Your task to perform on an android device: Go to Maps Image 0: 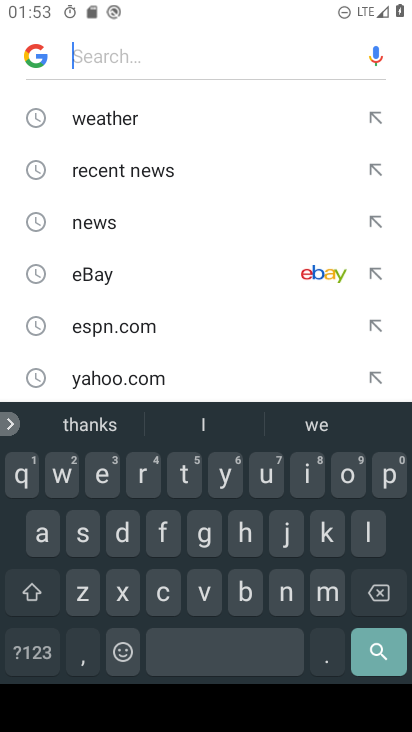
Step 0: press home button
Your task to perform on an android device: Go to Maps Image 1: 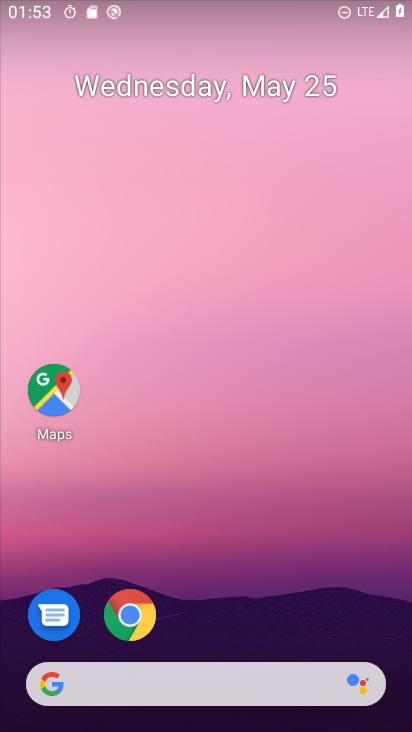
Step 1: drag from (202, 706) to (366, 0)
Your task to perform on an android device: Go to Maps Image 2: 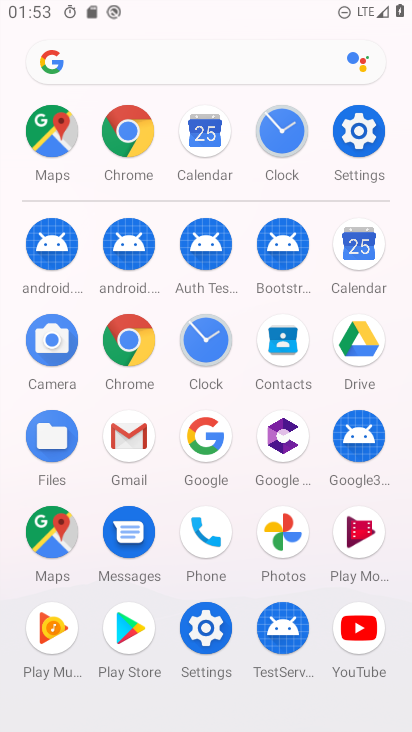
Step 2: click (59, 143)
Your task to perform on an android device: Go to Maps Image 3: 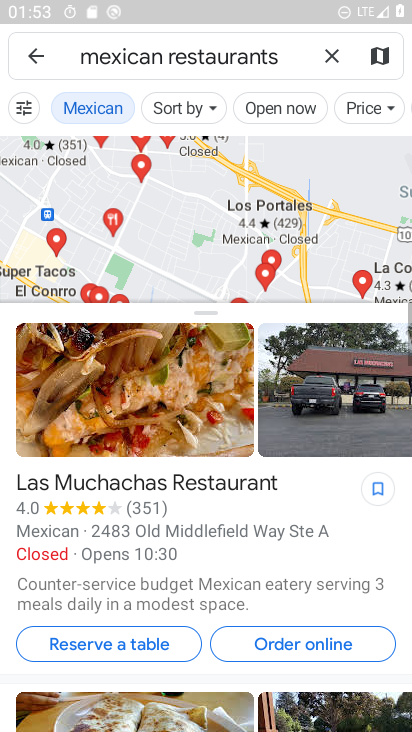
Step 3: click (23, 53)
Your task to perform on an android device: Go to Maps Image 4: 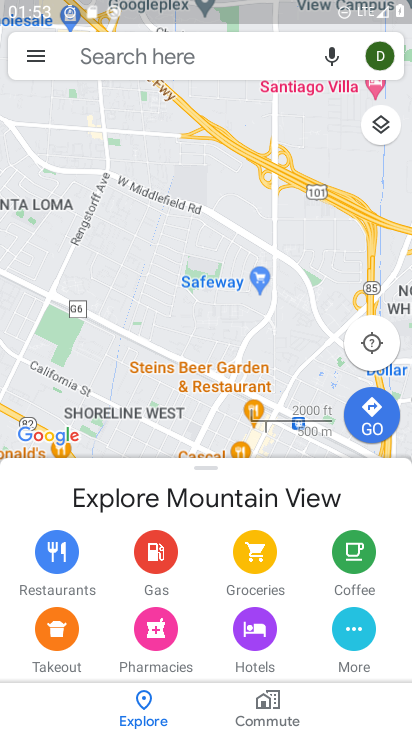
Step 4: click (129, 229)
Your task to perform on an android device: Go to Maps Image 5: 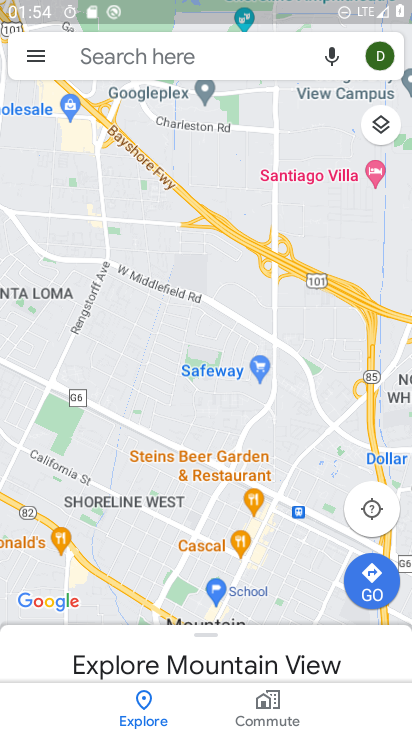
Step 5: task complete